Your task to perform on an android device: Find coffee shops on Maps Image 0: 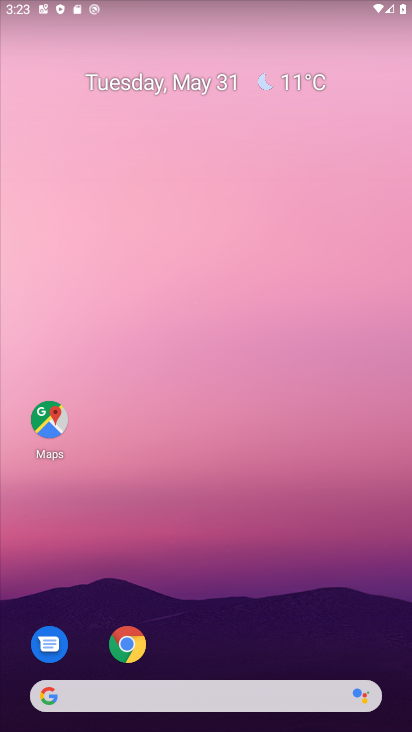
Step 0: click (48, 422)
Your task to perform on an android device: Find coffee shops on Maps Image 1: 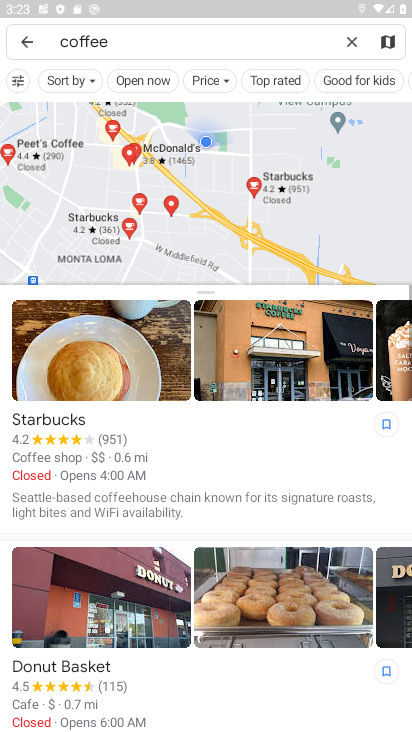
Step 1: click (117, 33)
Your task to perform on an android device: Find coffee shops on Maps Image 2: 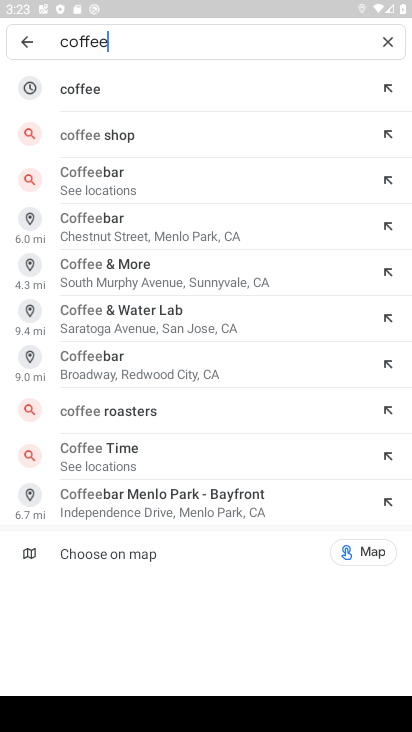
Step 2: click (110, 142)
Your task to perform on an android device: Find coffee shops on Maps Image 3: 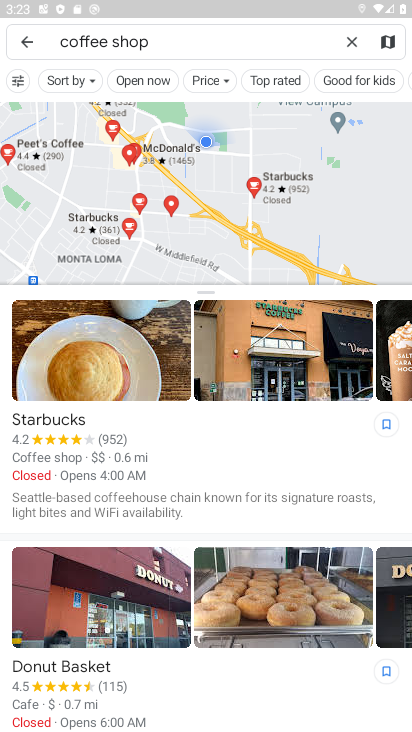
Step 3: task complete